Your task to perform on an android device: Open notification settings Image 0: 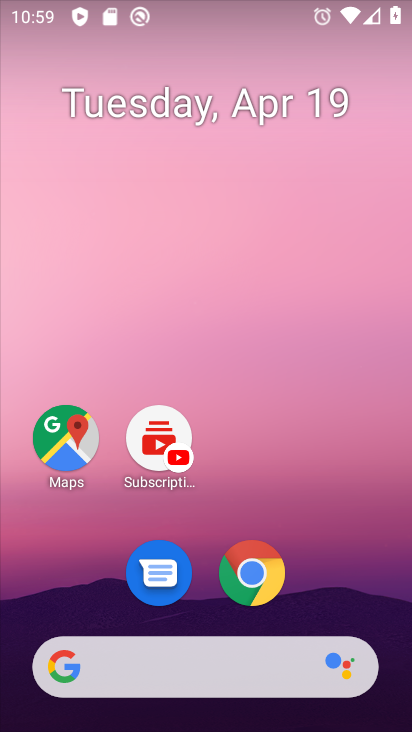
Step 0: drag from (348, 558) to (301, 130)
Your task to perform on an android device: Open notification settings Image 1: 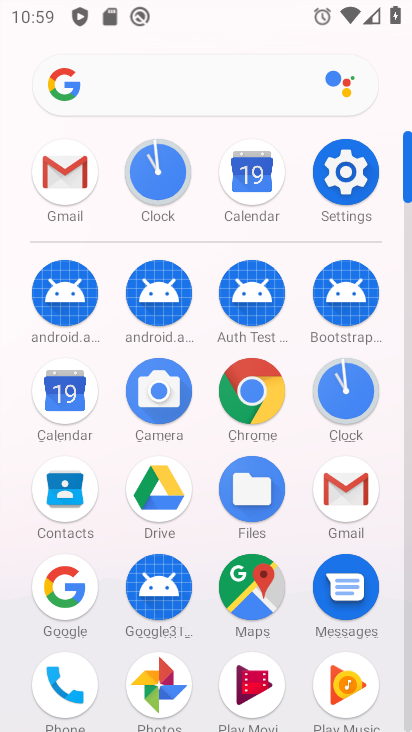
Step 1: click (346, 180)
Your task to perform on an android device: Open notification settings Image 2: 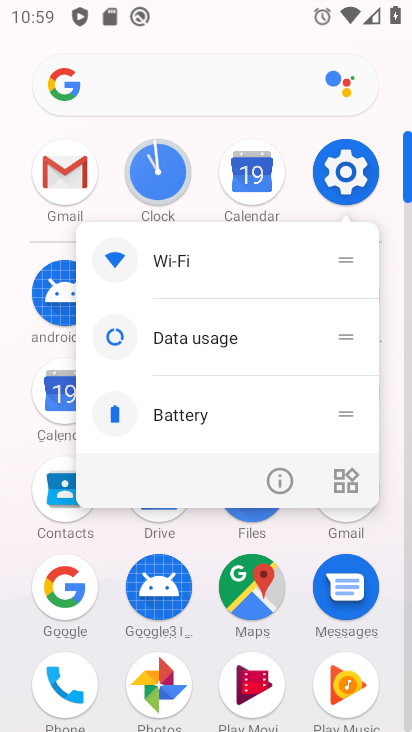
Step 2: click (346, 180)
Your task to perform on an android device: Open notification settings Image 3: 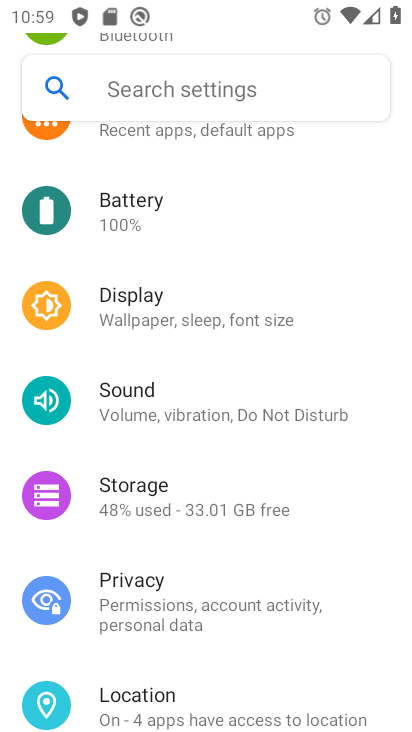
Step 3: drag from (161, 162) to (141, 373)
Your task to perform on an android device: Open notification settings Image 4: 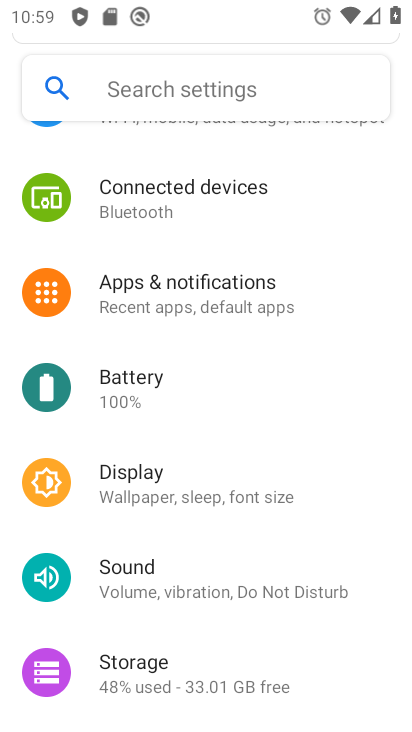
Step 4: click (144, 311)
Your task to perform on an android device: Open notification settings Image 5: 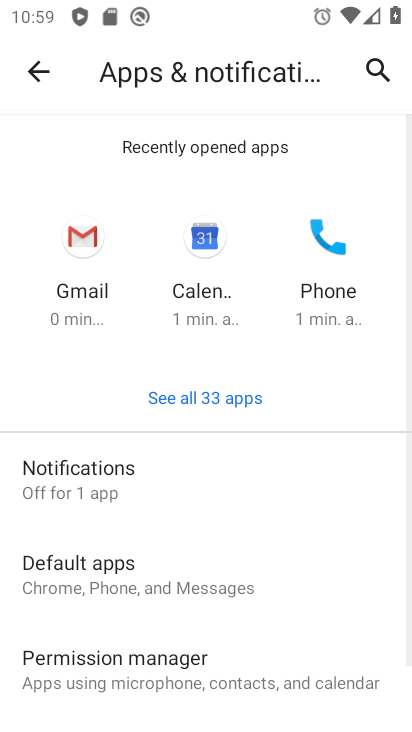
Step 5: drag from (123, 582) to (123, 199)
Your task to perform on an android device: Open notification settings Image 6: 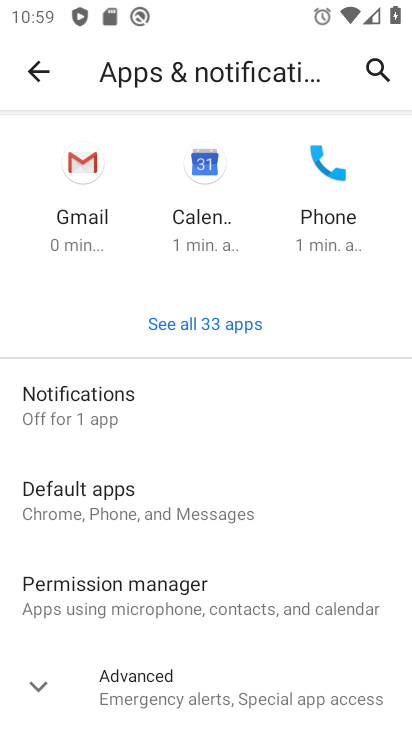
Step 6: click (86, 397)
Your task to perform on an android device: Open notification settings Image 7: 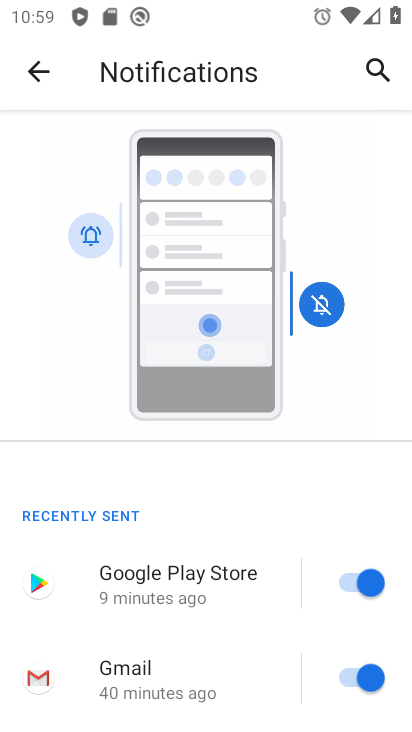
Step 7: task complete